Your task to perform on an android device: Go to privacy settings Image 0: 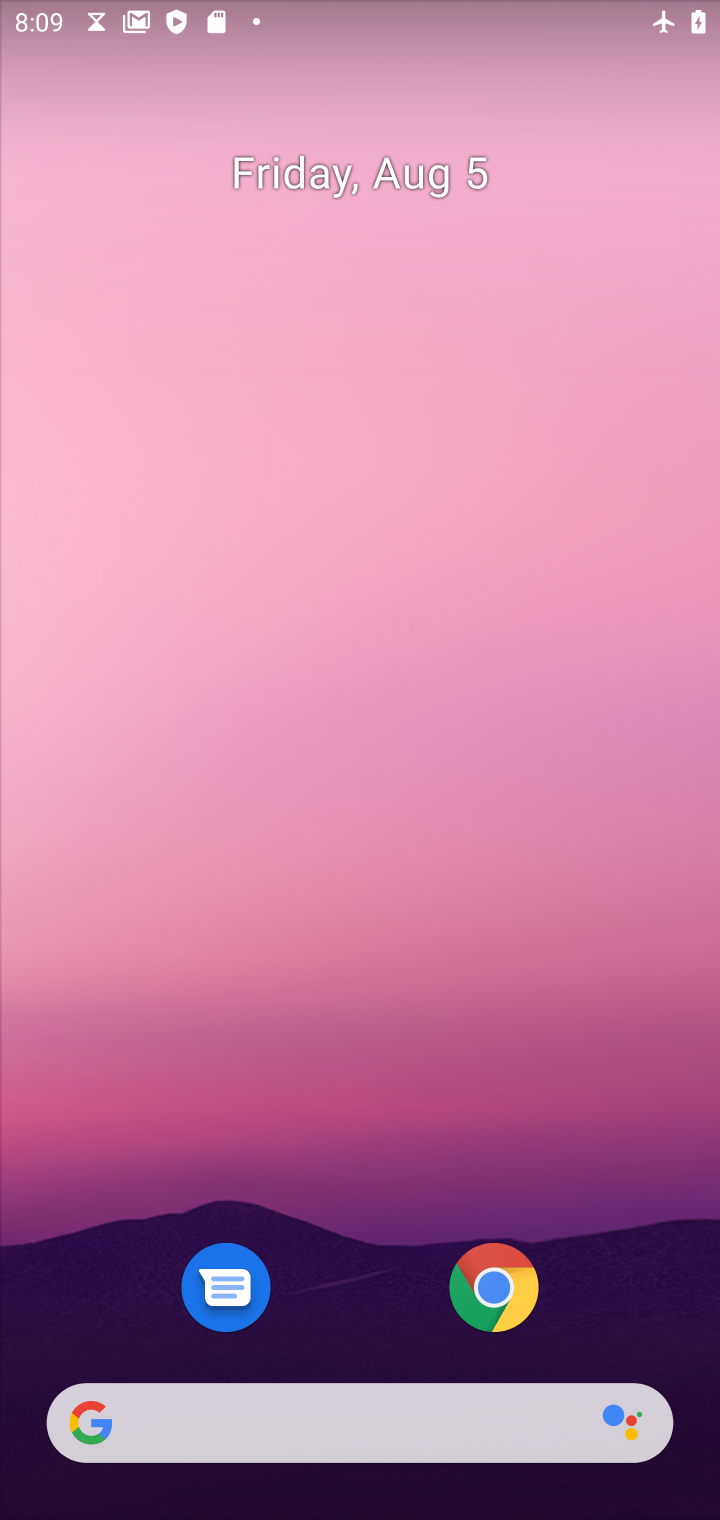
Step 0: drag from (359, 1330) to (352, 316)
Your task to perform on an android device: Go to privacy settings Image 1: 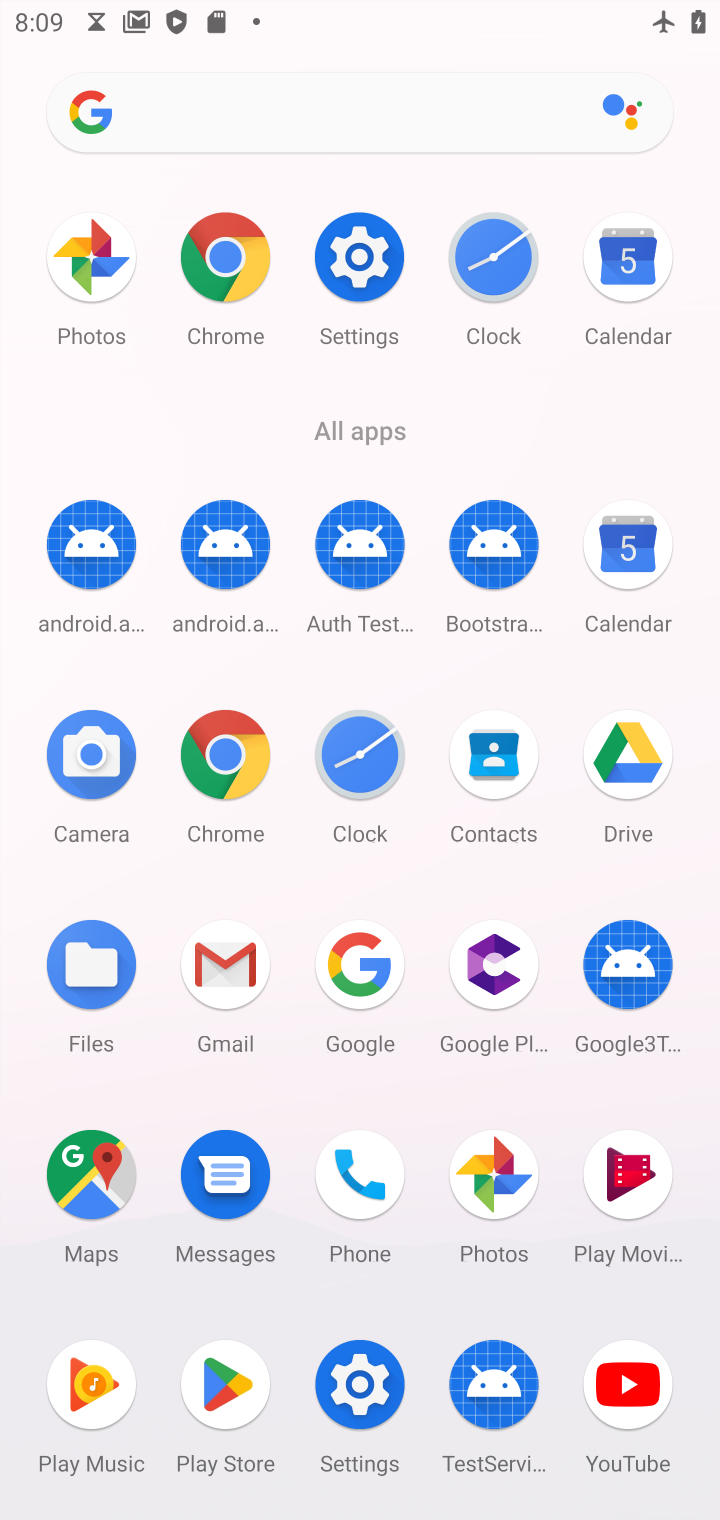
Step 1: click (347, 258)
Your task to perform on an android device: Go to privacy settings Image 2: 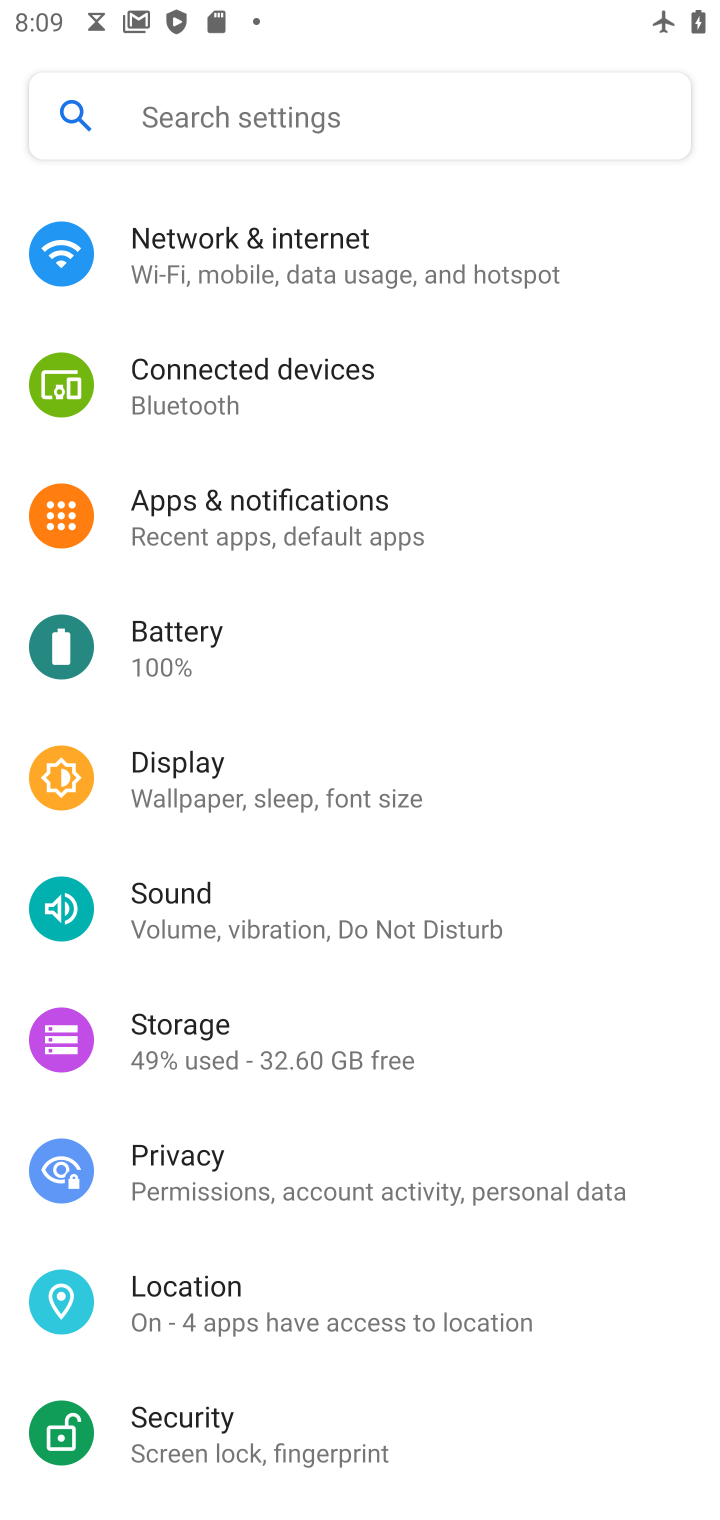
Step 2: click (175, 1151)
Your task to perform on an android device: Go to privacy settings Image 3: 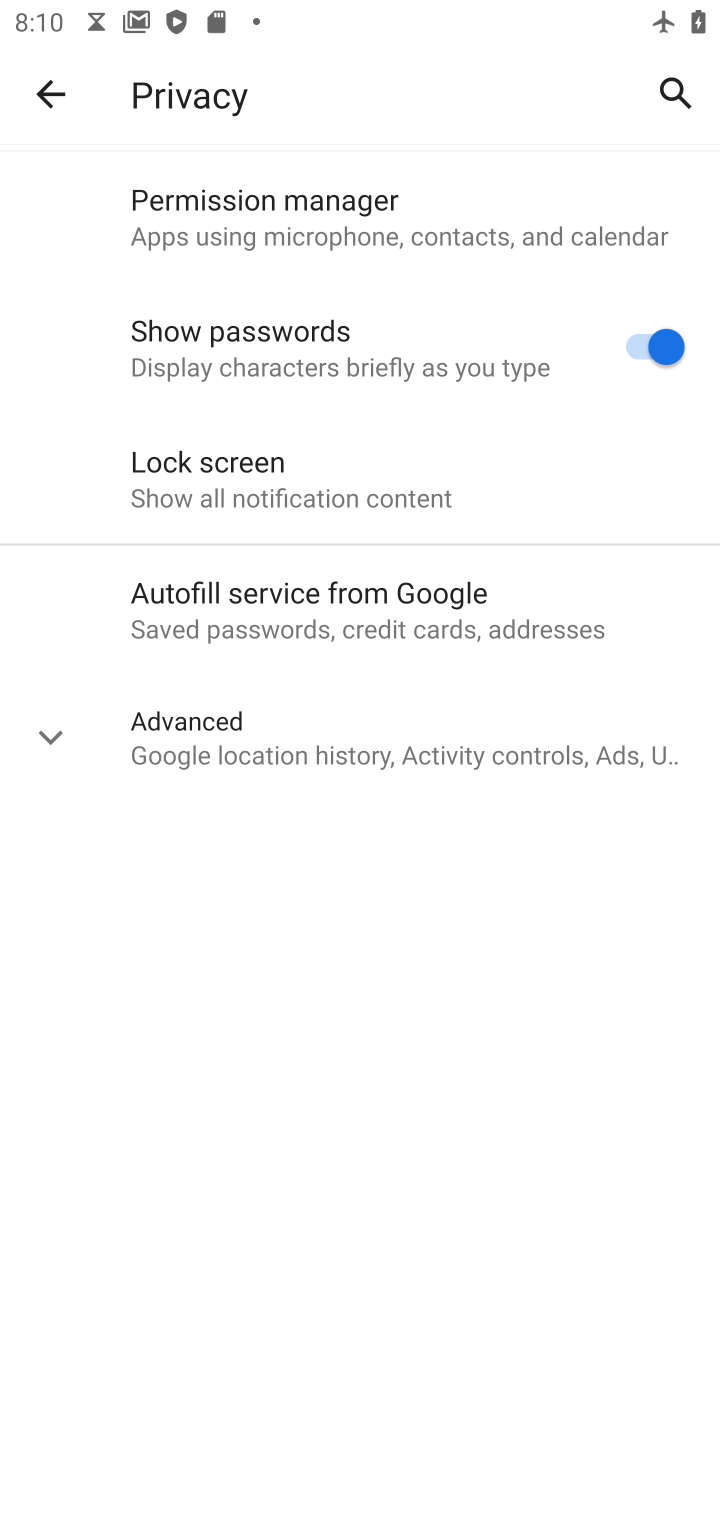
Step 3: task complete